Your task to perform on an android device: turn off javascript in the chrome app Image 0: 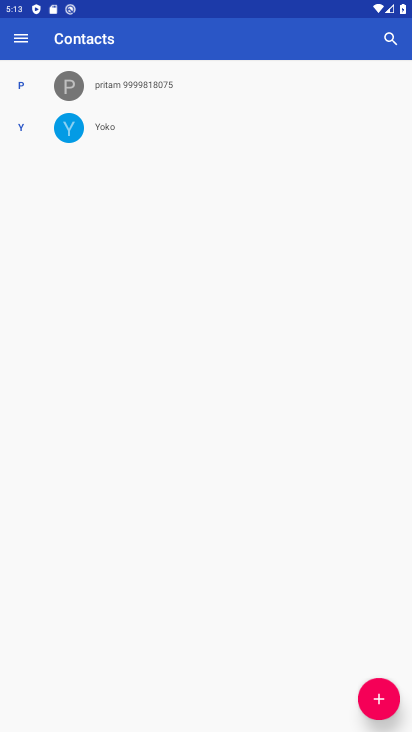
Step 0: press home button
Your task to perform on an android device: turn off javascript in the chrome app Image 1: 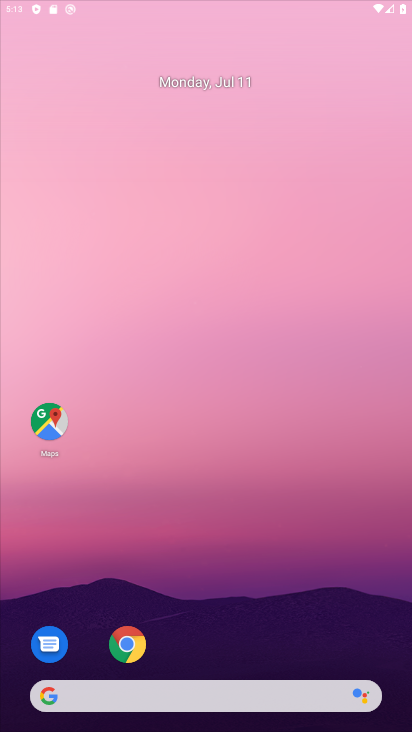
Step 1: drag from (196, 706) to (145, 9)
Your task to perform on an android device: turn off javascript in the chrome app Image 2: 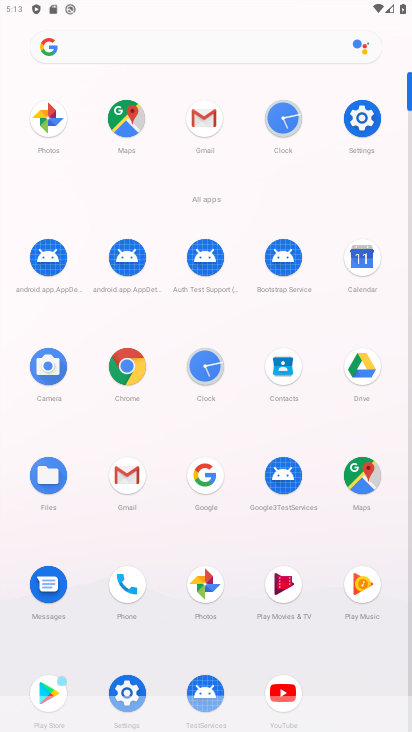
Step 2: click (116, 352)
Your task to perform on an android device: turn off javascript in the chrome app Image 3: 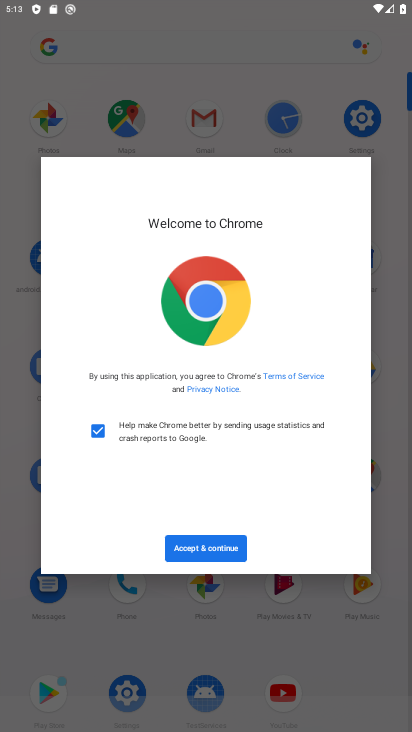
Step 3: click (219, 557)
Your task to perform on an android device: turn off javascript in the chrome app Image 4: 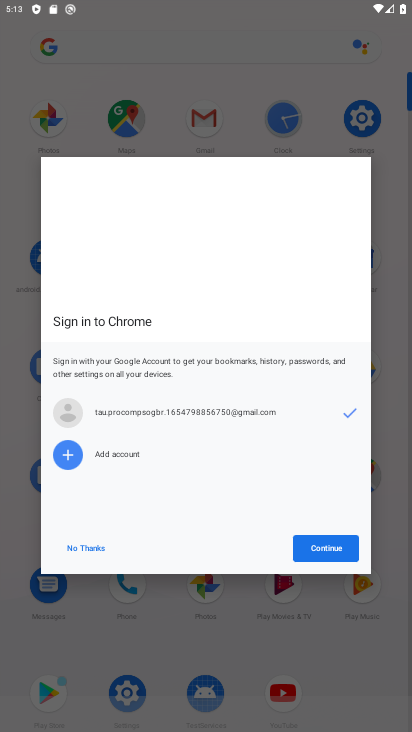
Step 4: click (80, 546)
Your task to perform on an android device: turn off javascript in the chrome app Image 5: 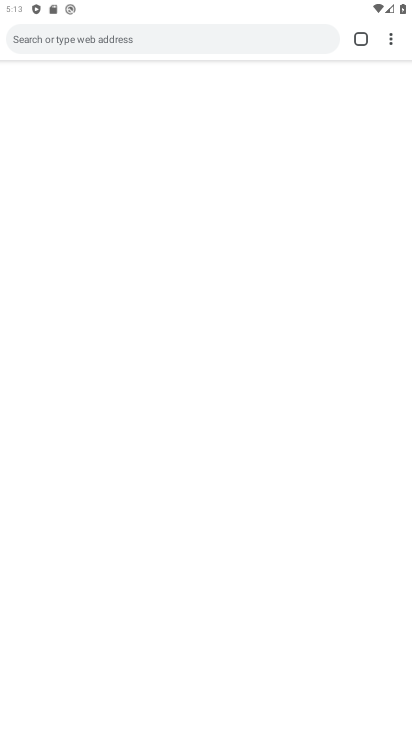
Step 5: click (387, 39)
Your task to perform on an android device: turn off javascript in the chrome app Image 6: 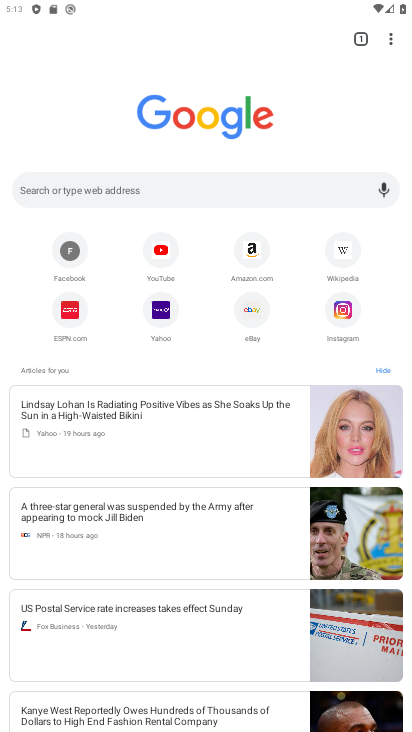
Step 6: click (389, 42)
Your task to perform on an android device: turn off javascript in the chrome app Image 7: 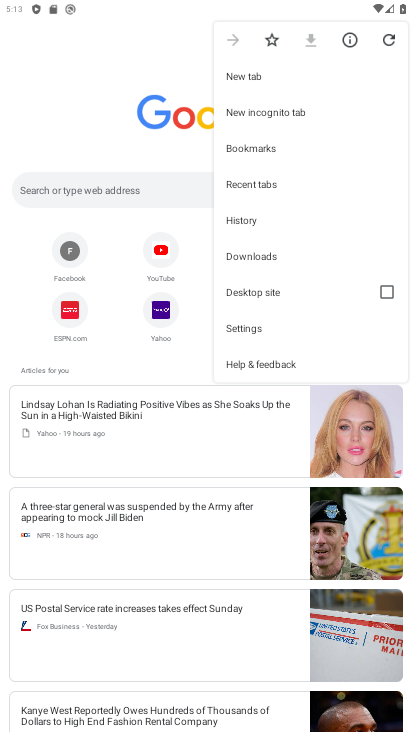
Step 7: click (270, 326)
Your task to perform on an android device: turn off javascript in the chrome app Image 8: 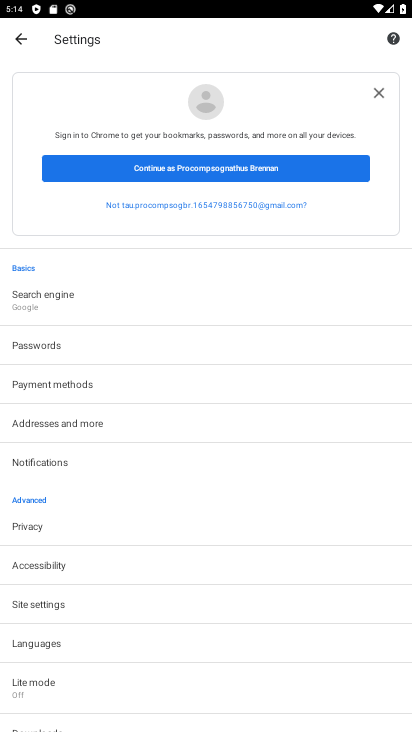
Step 8: click (57, 611)
Your task to perform on an android device: turn off javascript in the chrome app Image 9: 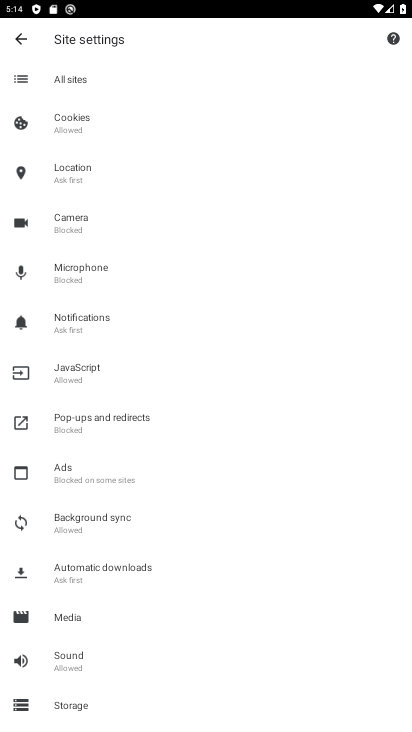
Step 9: click (80, 377)
Your task to perform on an android device: turn off javascript in the chrome app Image 10: 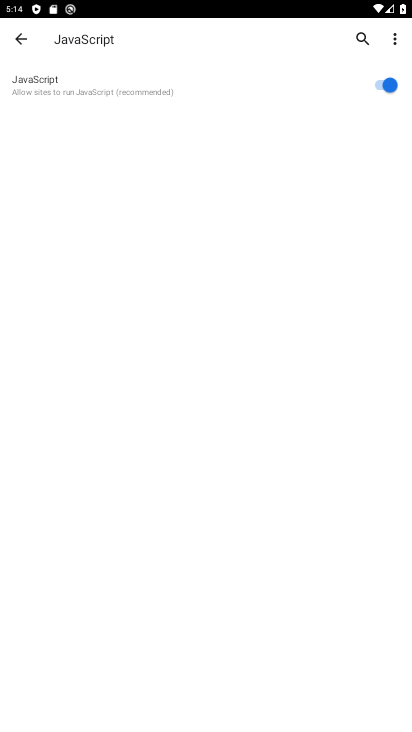
Step 10: click (376, 81)
Your task to perform on an android device: turn off javascript in the chrome app Image 11: 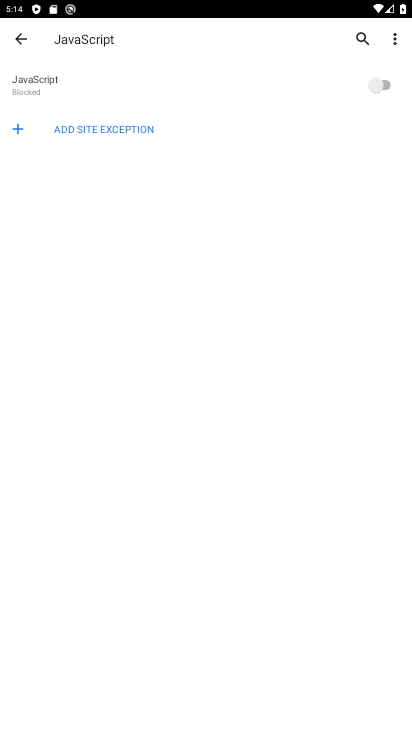
Step 11: task complete